Your task to perform on an android device: toggle wifi Image 0: 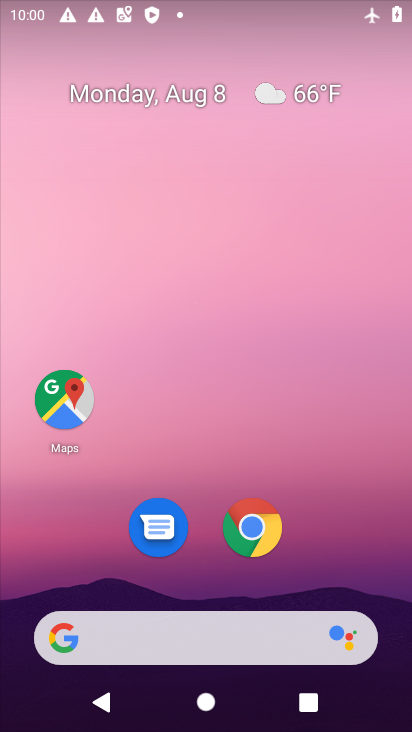
Step 0: drag from (393, 715) to (366, 171)
Your task to perform on an android device: toggle wifi Image 1: 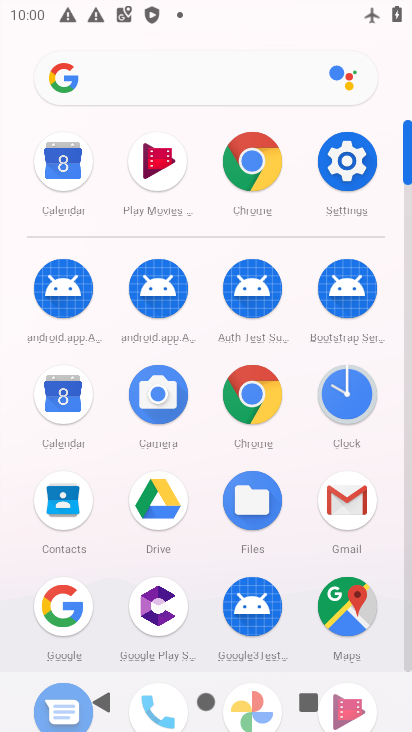
Step 1: click (348, 144)
Your task to perform on an android device: toggle wifi Image 2: 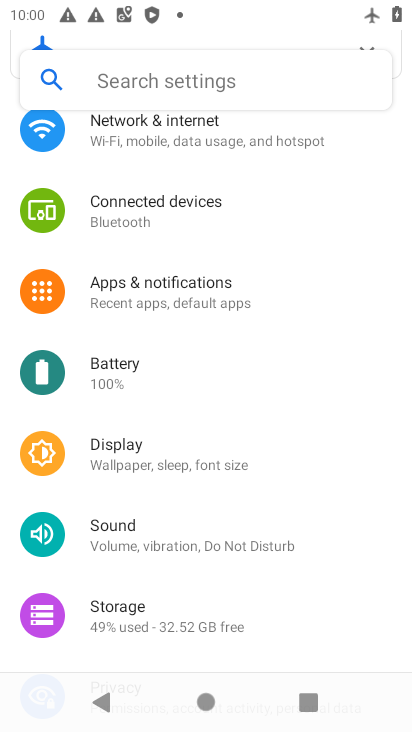
Step 2: click (181, 135)
Your task to perform on an android device: toggle wifi Image 3: 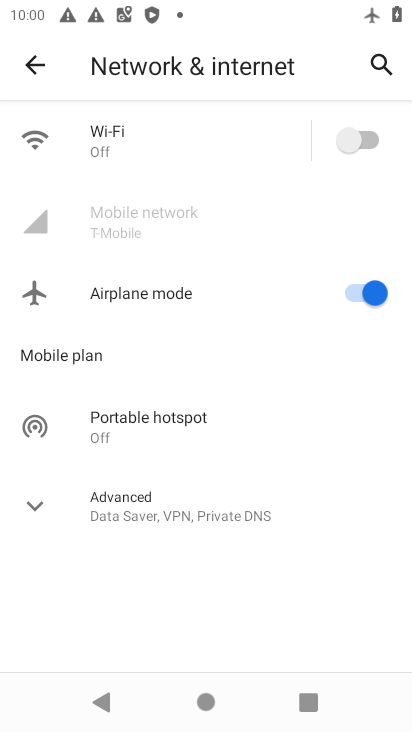
Step 3: click (367, 135)
Your task to perform on an android device: toggle wifi Image 4: 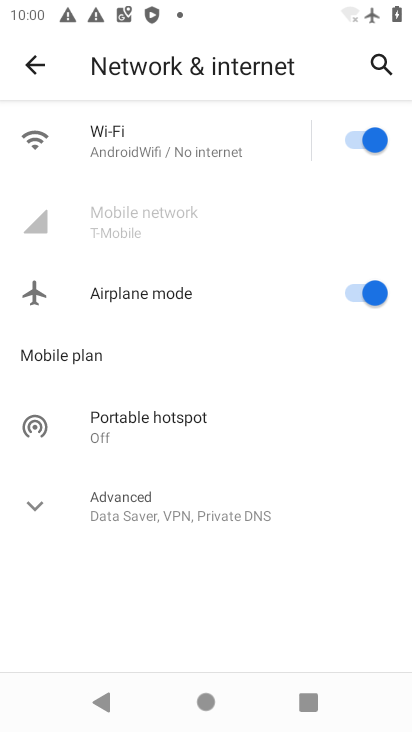
Step 4: click (350, 292)
Your task to perform on an android device: toggle wifi Image 5: 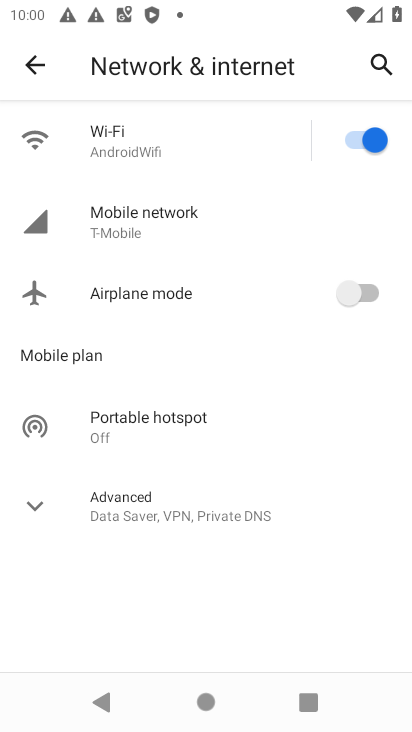
Step 5: task complete